Your task to perform on an android device: toggle javascript in the chrome app Image 0: 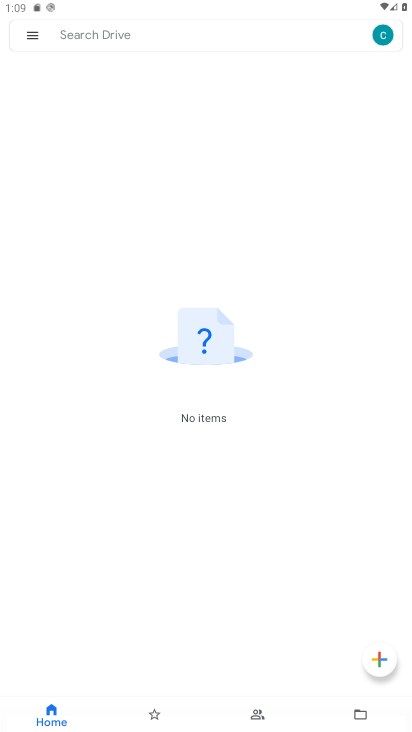
Step 0: press back button
Your task to perform on an android device: toggle javascript in the chrome app Image 1: 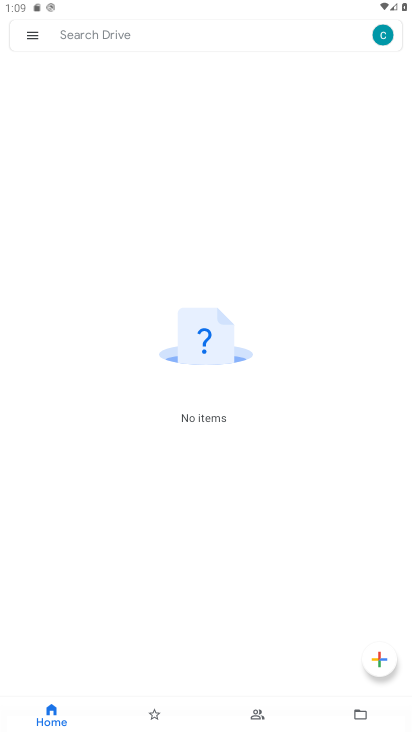
Step 1: press back button
Your task to perform on an android device: toggle javascript in the chrome app Image 2: 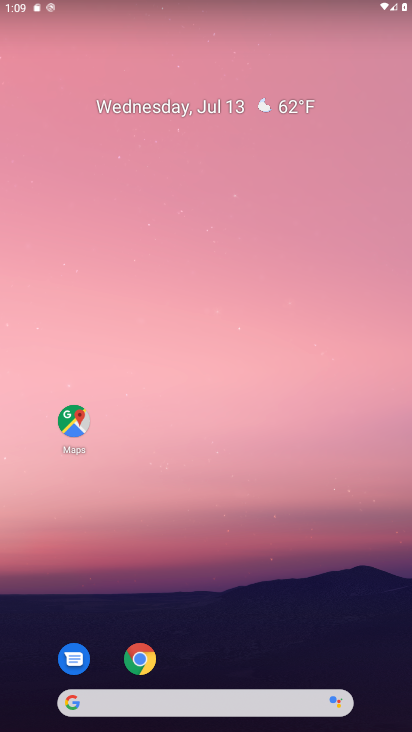
Step 2: press home button
Your task to perform on an android device: toggle javascript in the chrome app Image 3: 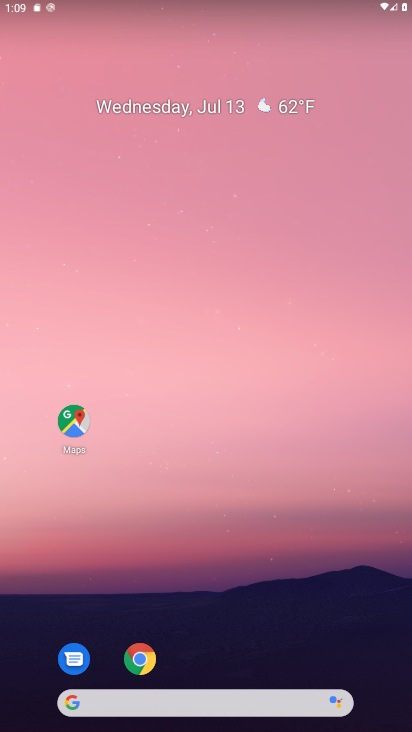
Step 3: drag from (347, 534) to (302, 43)
Your task to perform on an android device: toggle javascript in the chrome app Image 4: 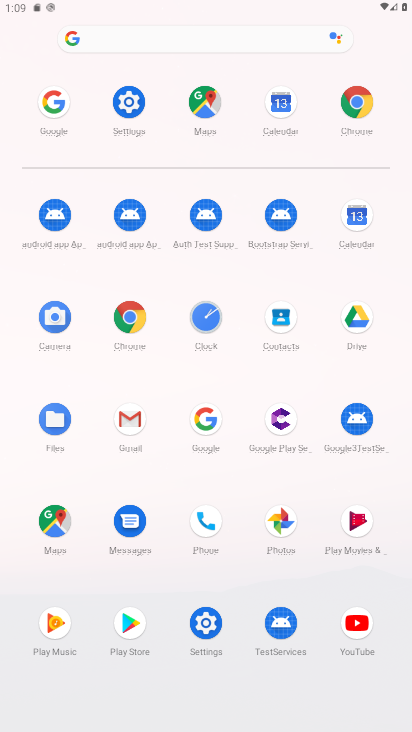
Step 4: click (133, 321)
Your task to perform on an android device: toggle javascript in the chrome app Image 5: 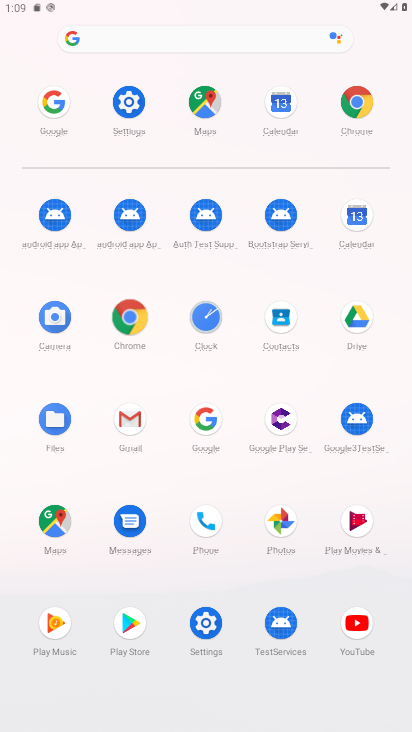
Step 5: click (133, 321)
Your task to perform on an android device: toggle javascript in the chrome app Image 6: 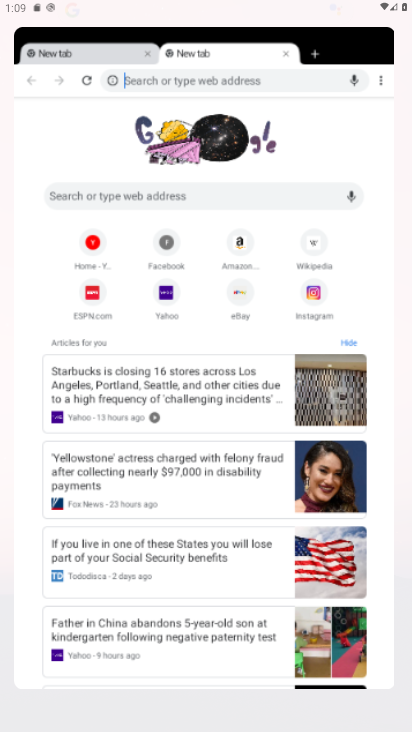
Step 6: click (133, 321)
Your task to perform on an android device: toggle javascript in the chrome app Image 7: 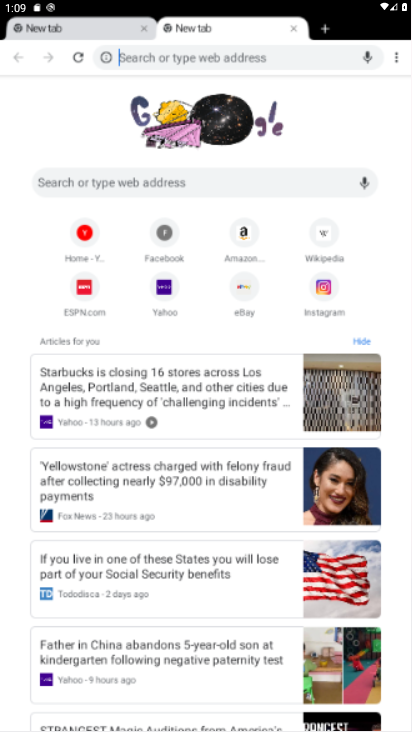
Step 7: click (133, 321)
Your task to perform on an android device: toggle javascript in the chrome app Image 8: 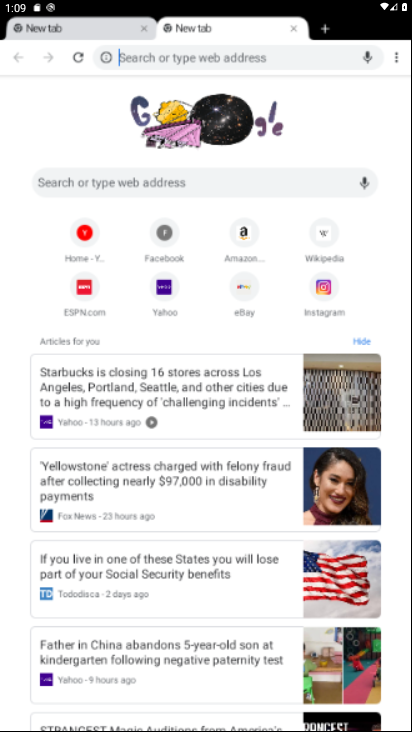
Step 8: click (133, 321)
Your task to perform on an android device: toggle javascript in the chrome app Image 9: 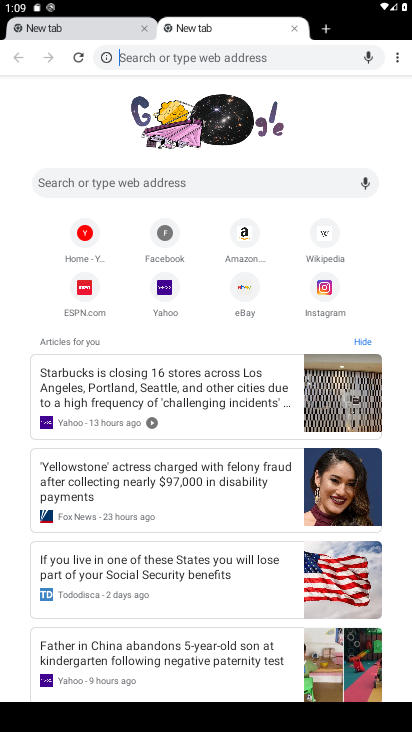
Step 9: drag from (403, 58) to (287, 287)
Your task to perform on an android device: toggle javascript in the chrome app Image 10: 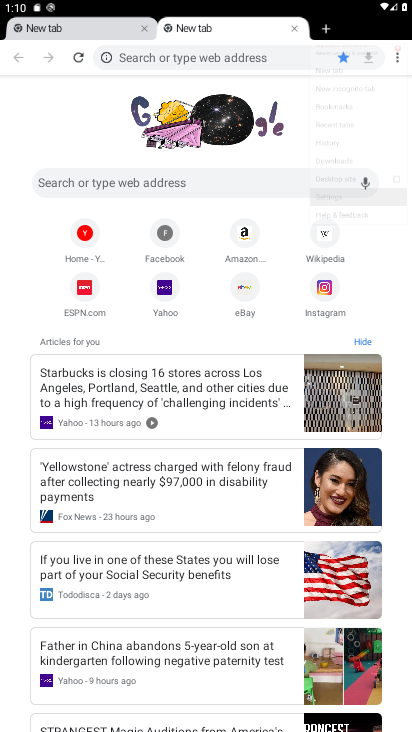
Step 10: click (286, 288)
Your task to perform on an android device: toggle javascript in the chrome app Image 11: 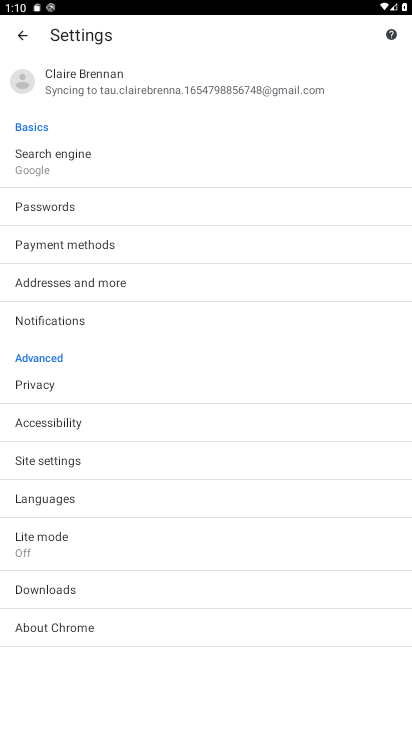
Step 11: click (43, 446)
Your task to perform on an android device: toggle javascript in the chrome app Image 12: 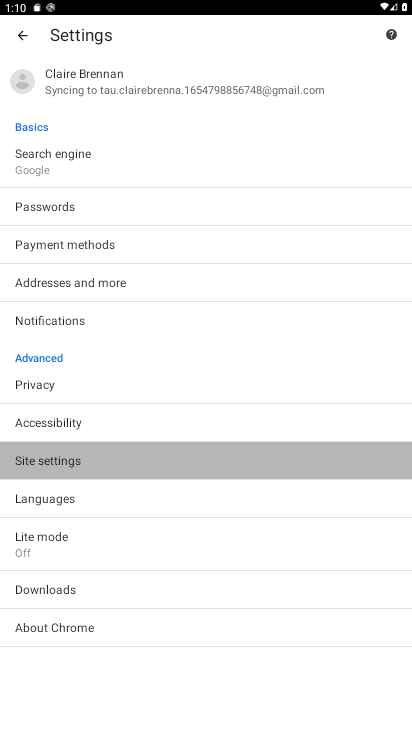
Step 12: click (46, 448)
Your task to perform on an android device: toggle javascript in the chrome app Image 13: 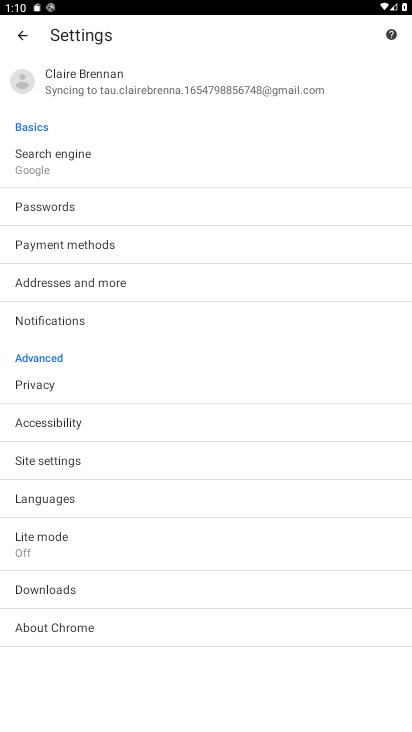
Step 13: click (46, 448)
Your task to perform on an android device: toggle javascript in the chrome app Image 14: 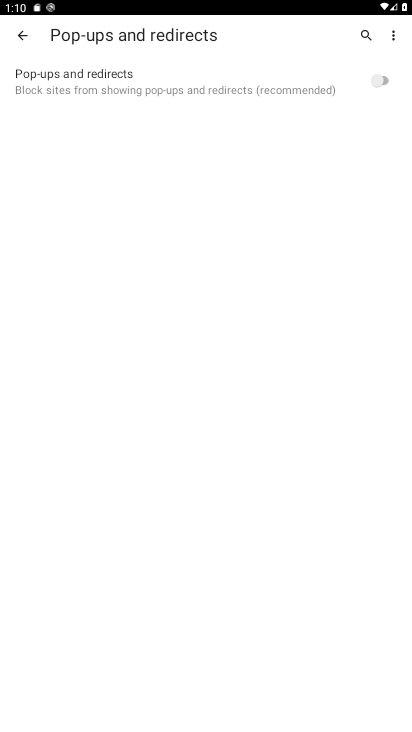
Step 14: click (24, 35)
Your task to perform on an android device: toggle javascript in the chrome app Image 15: 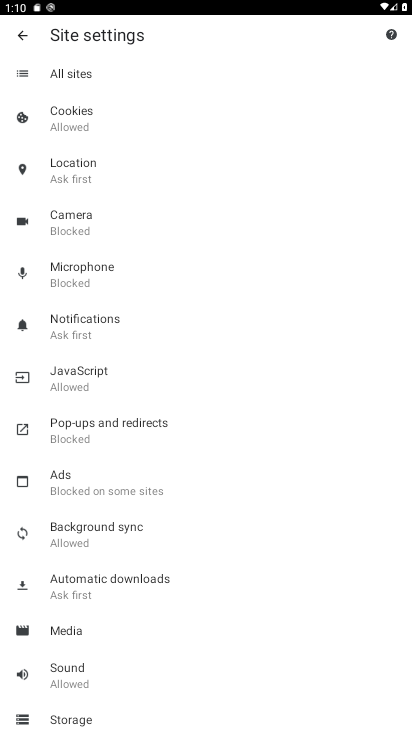
Step 15: click (78, 382)
Your task to perform on an android device: toggle javascript in the chrome app Image 16: 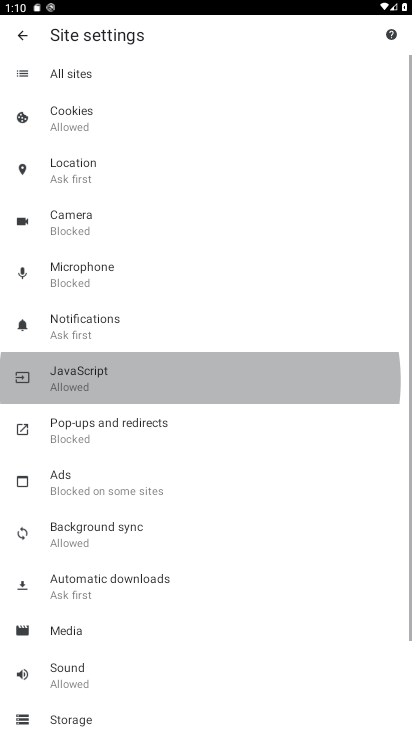
Step 16: click (79, 381)
Your task to perform on an android device: toggle javascript in the chrome app Image 17: 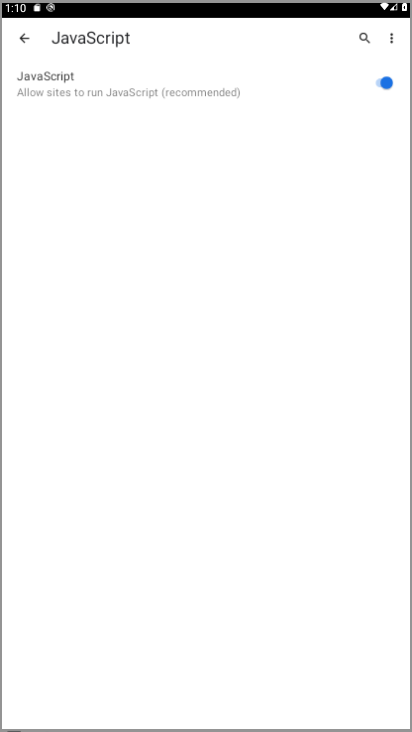
Step 17: click (83, 376)
Your task to perform on an android device: toggle javascript in the chrome app Image 18: 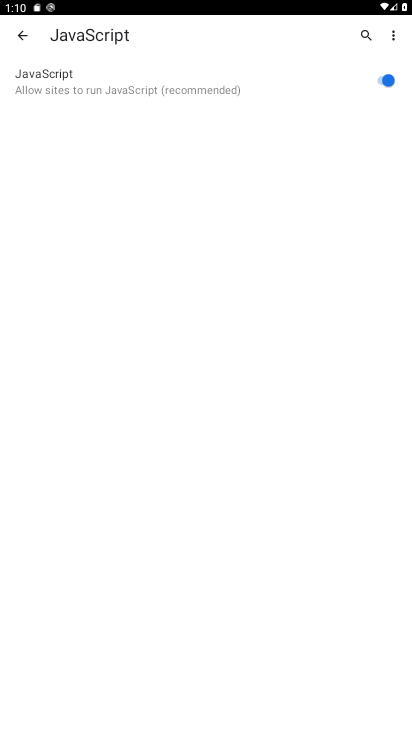
Step 18: task complete